Your task to perform on an android device: Go to Google Image 0: 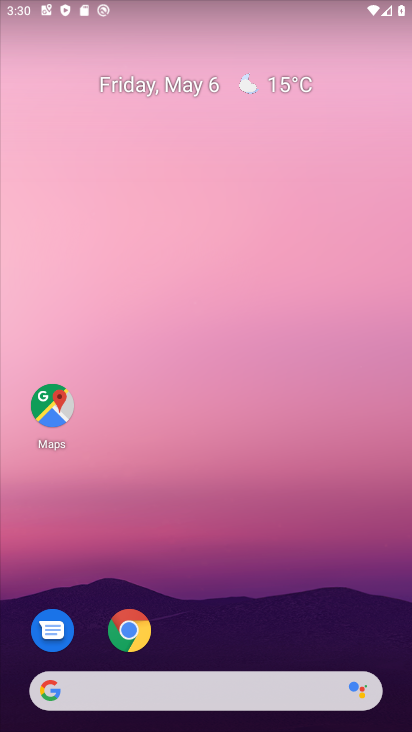
Step 0: click (109, 684)
Your task to perform on an android device: Go to Google Image 1: 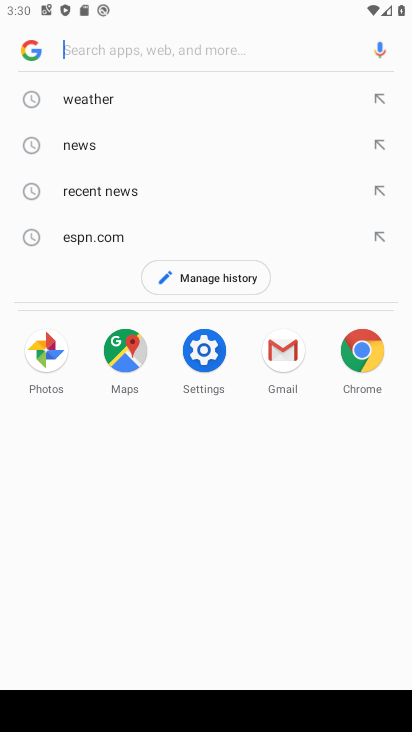
Step 1: task complete